Your task to perform on an android device: Check the news Image 0: 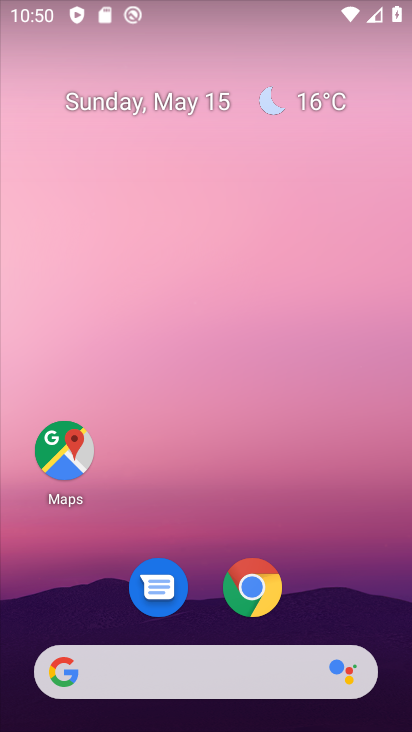
Step 0: drag from (324, 511) to (247, 123)
Your task to perform on an android device: Check the news Image 1: 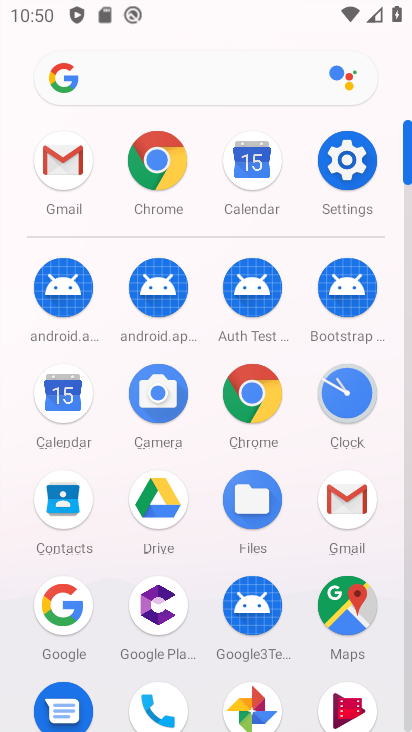
Step 1: click (148, 153)
Your task to perform on an android device: Check the news Image 2: 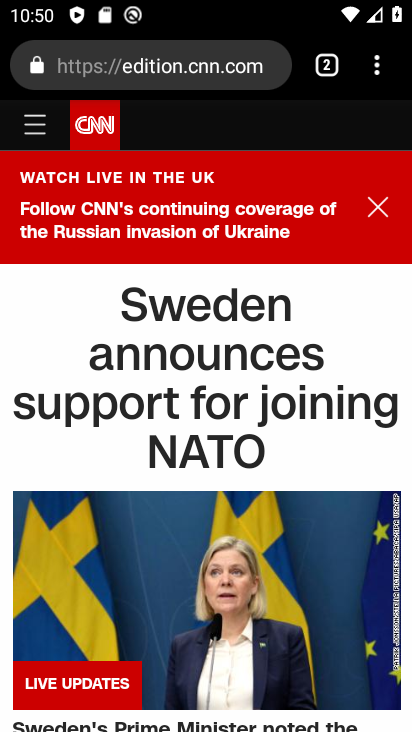
Step 2: click (185, 80)
Your task to perform on an android device: Check the news Image 3: 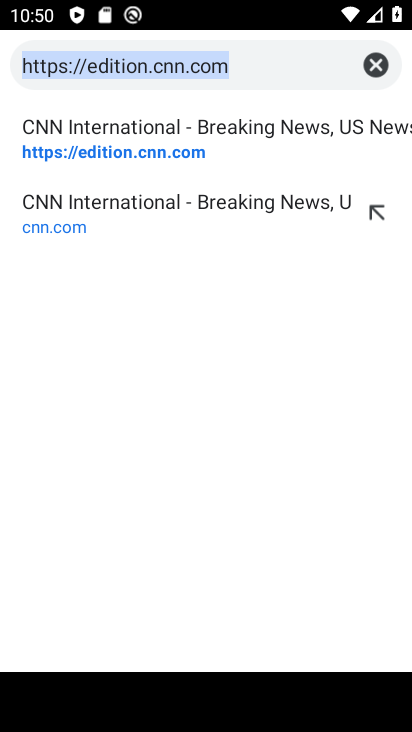
Step 3: click (380, 53)
Your task to perform on an android device: Check the news Image 4: 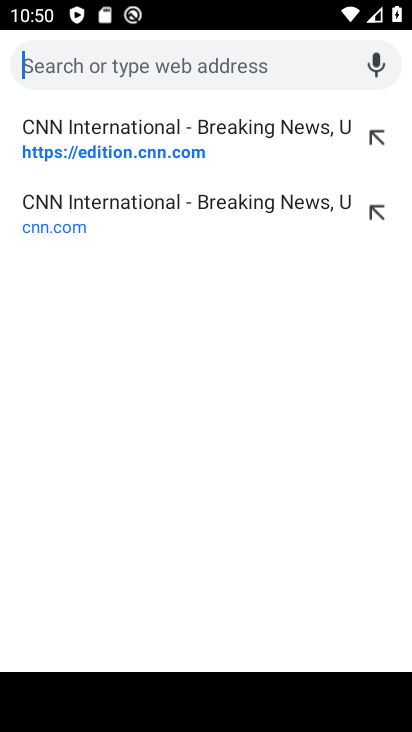
Step 4: type "Check the news"
Your task to perform on an android device: Check the news Image 5: 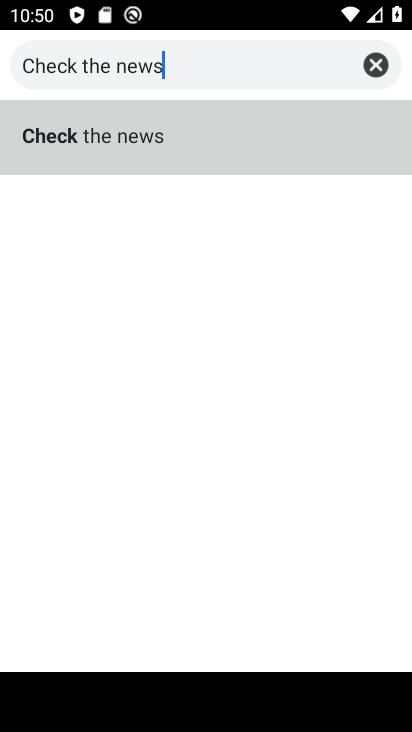
Step 5: type ""
Your task to perform on an android device: Check the news Image 6: 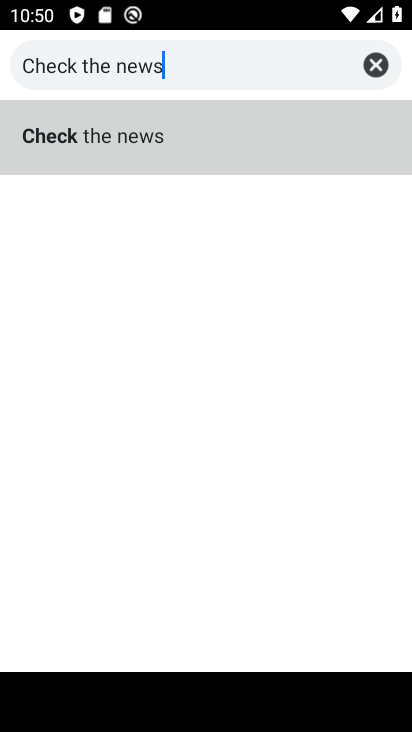
Step 6: click (139, 128)
Your task to perform on an android device: Check the news Image 7: 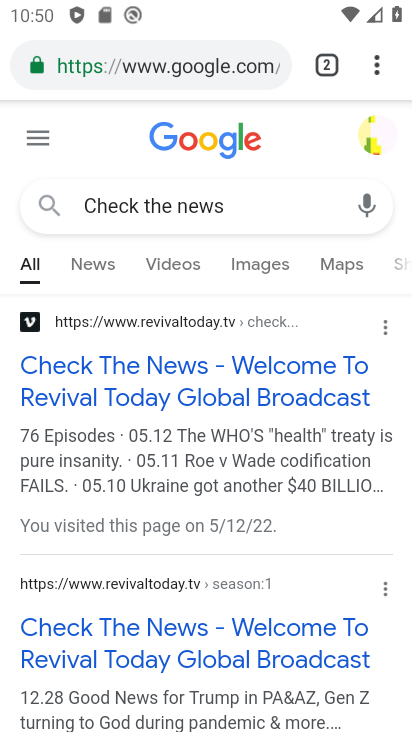
Step 7: click (108, 265)
Your task to perform on an android device: Check the news Image 8: 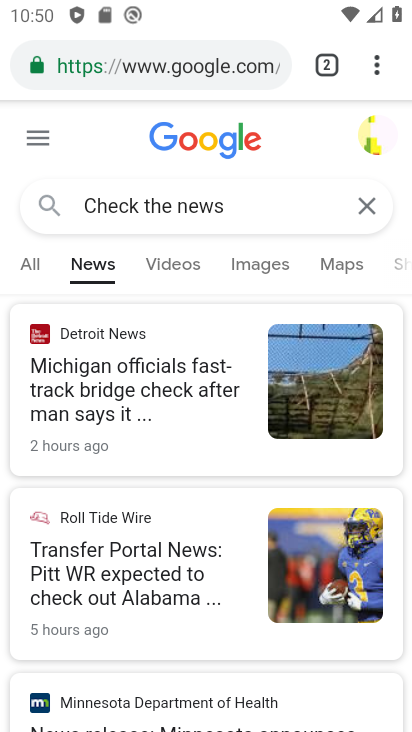
Step 8: task complete